Your task to perform on an android device: turn off improve location accuracy Image 0: 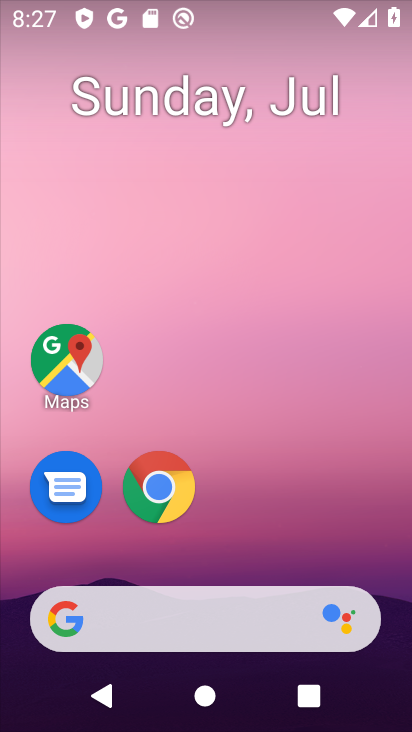
Step 0: drag from (291, 587) to (304, 16)
Your task to perform on an android device: turn off improve location accuracy Image 1: 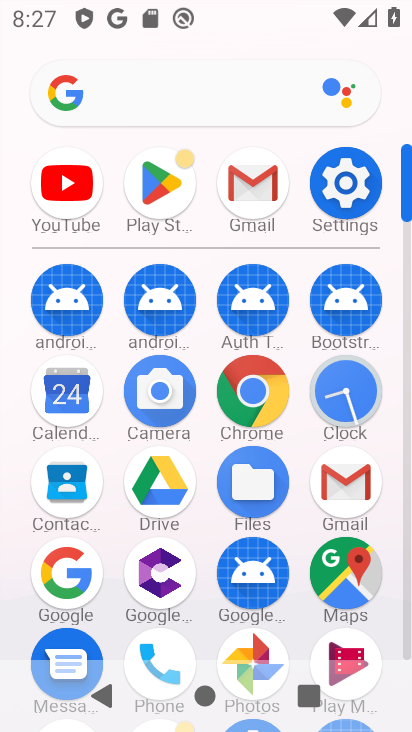
Step 1: click (318, 175)
Your task to perform on an android device: turn off improve location accuracy Image 2: 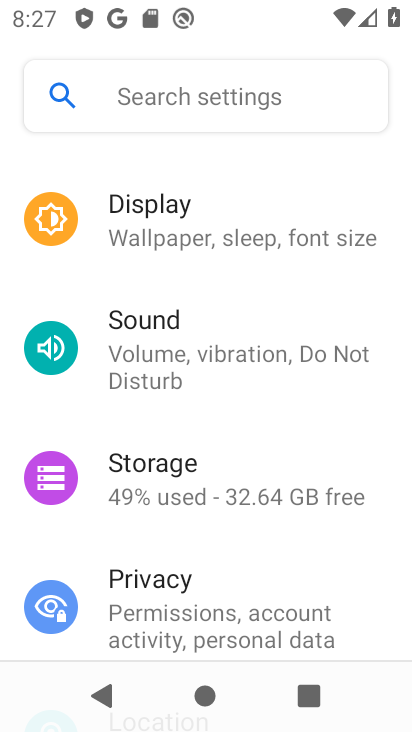
Step 2: drag from (165, 610) to (278, 4)
Your task to perform on an android device: turn off improve location accuracy Image 3: 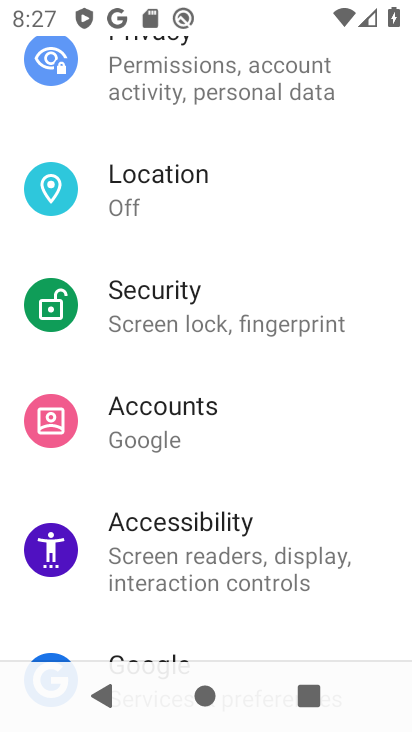
Step 3: click (142, 189)
Your task to perform on an android device: turn off improve location accuracy Image 4: 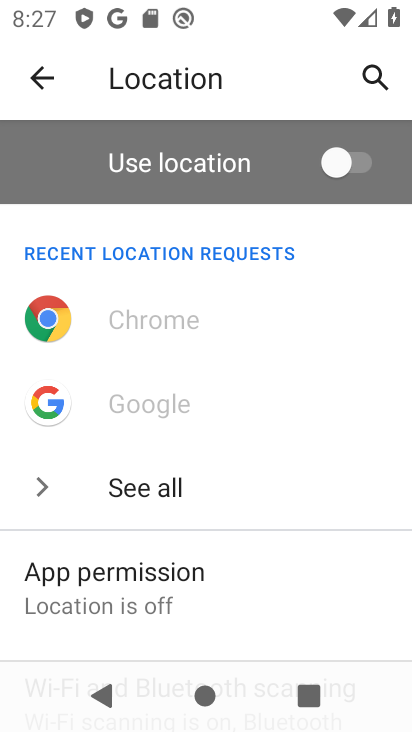
Step 4: drag from (139, 604) to (293, 76)
Your task to perform on an android device: turn off improve location accuracy Image 5: 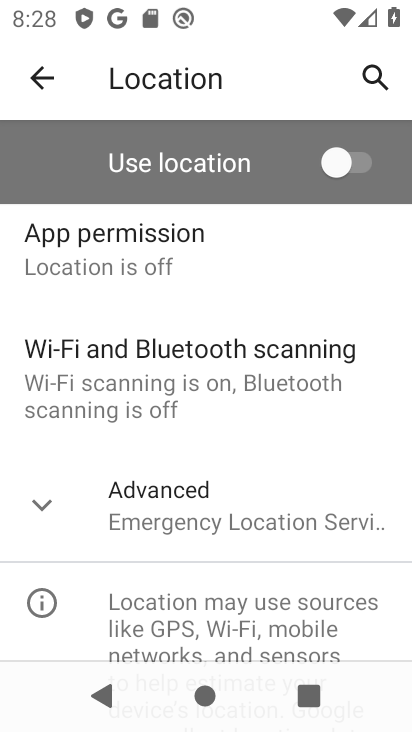
Step 5: click (132, 507)
Your task to perform on an android device: turn off improve location accuracy Image 6: 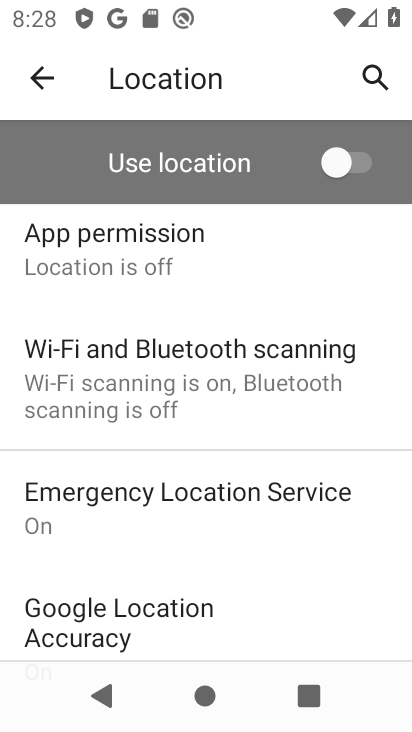
Step 6: click (143, 621)
Your task to perform on an android device: turn off improve location accuracy Image 7: 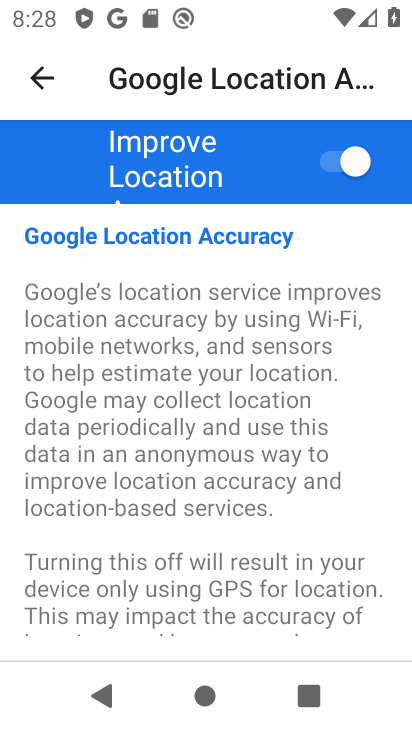
Step 7: click (347, 156)
Your task to perform on an android device: turn off improve location accuracy Image 8: 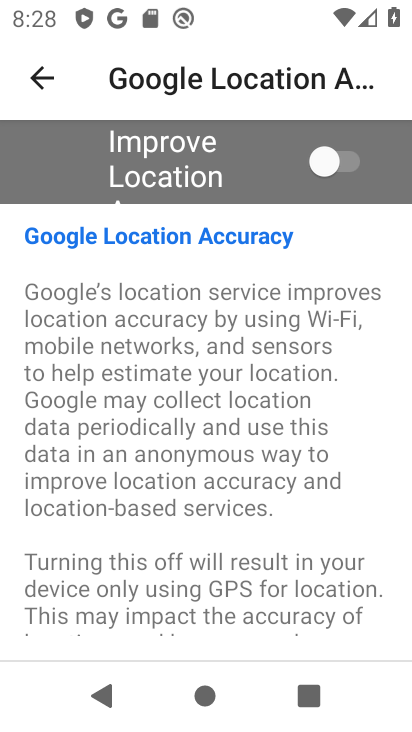
Step 8: task complete